Your task to perform on an android device: open a bookmark in the chrome app Image 0: 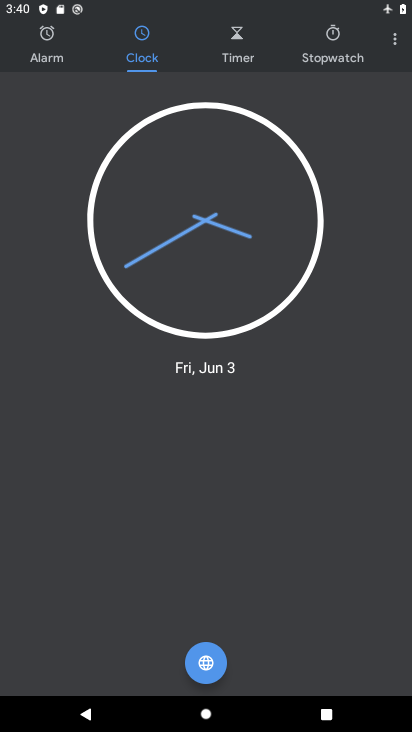
Step 0: press home button
Your task to perform on an android device: open a bookmark in the chrome app Image 1: 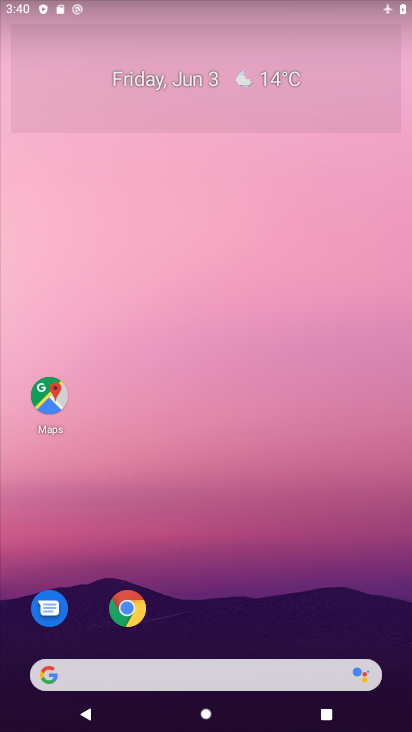
Step 1: click (138, 609)
Your task to perform on an android device: open a bookmark in the chrome app Image 2: 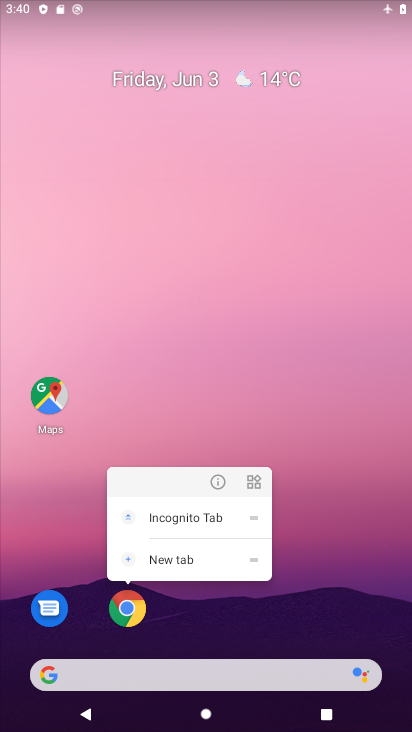
Step 2: click (122, 603)
Your task to perform on an android device: open a bookmark in the chrome app Image 3: 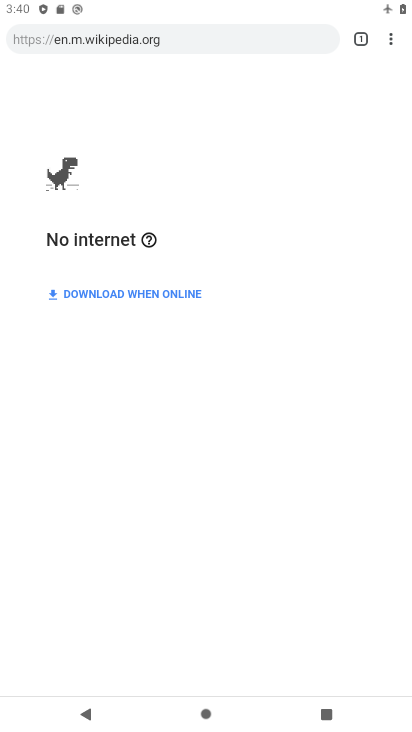
Step 3: click (394, 39)
Your task to perform on an android device: open a bookmark in the chrome app Image 4: 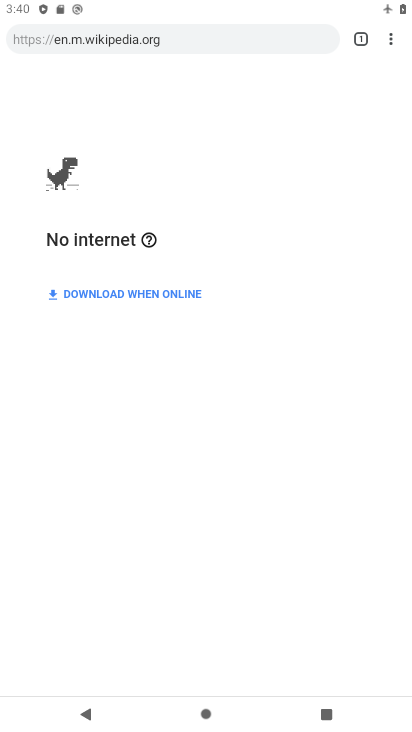
Step 4: click (390, 40)
Your task to perform on an android device: open a bookmark in the chrome app Image 5: 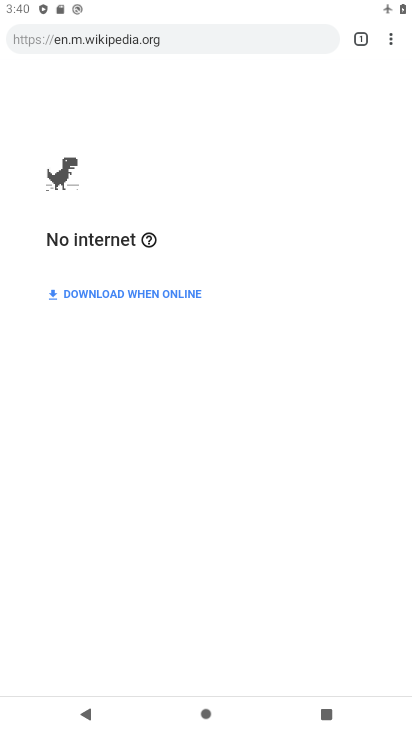
Step 5: click (389, 41)
Your task to perform on an android device: open a bookmark in the chrome app Image 6: 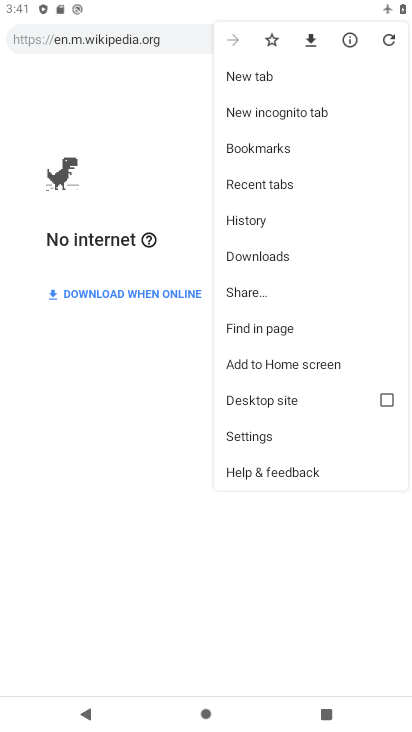
Step 6: click (250, 150)
Your task to perform on an android device: open a bookmark in the chrome app Image 7: 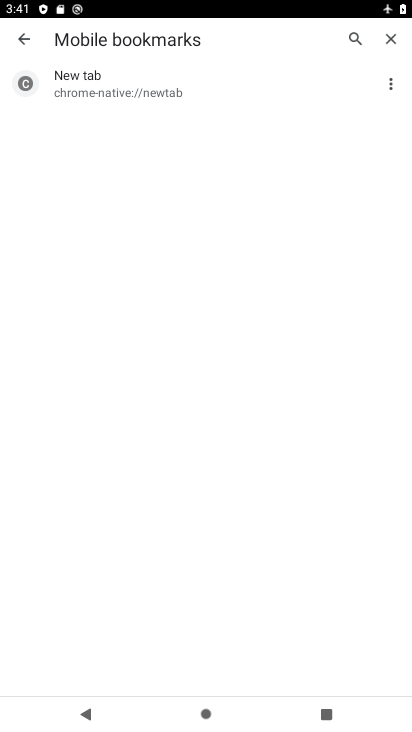
Step 7: task complete